Your task to perform on an android device: change the clock display to show seconds Image 0: 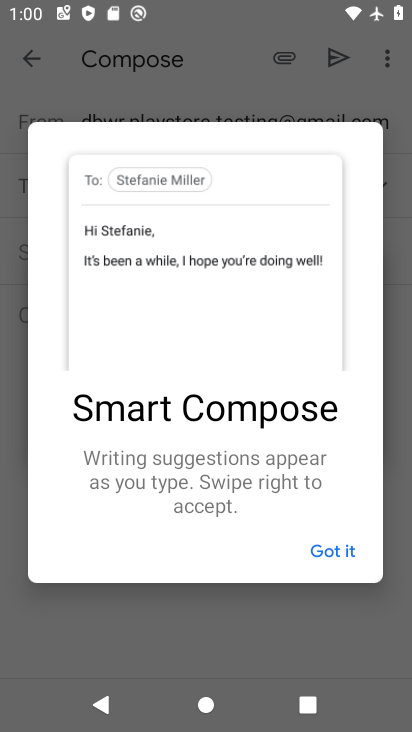
Step 0: press home button
Your task to perform on an android device: change the clock display to show seconds Image 1: 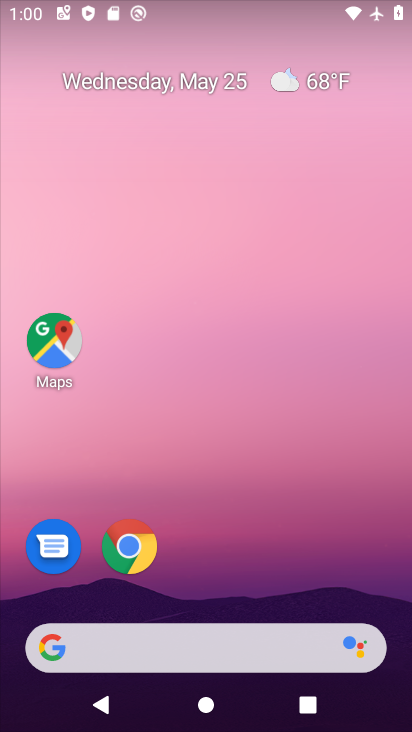
Step 1: drag from (284, 560) to (246, 119)
Your task to perform on an android device: change the clock display to show seconds Image 2: 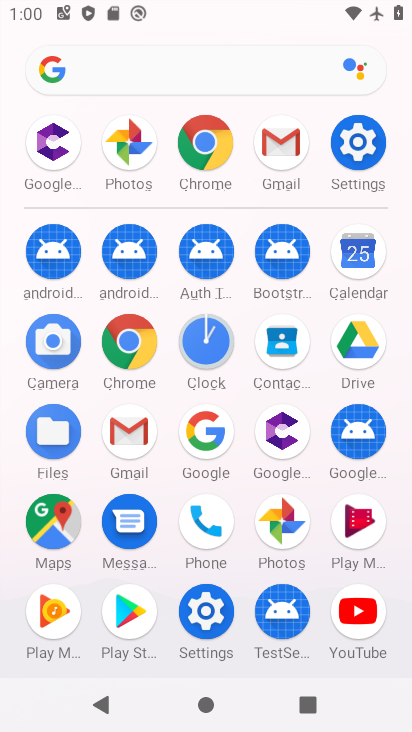
Step 2: click (361, 156)
Your task to perform on an android device: change the clock display to show seconds Image 3: 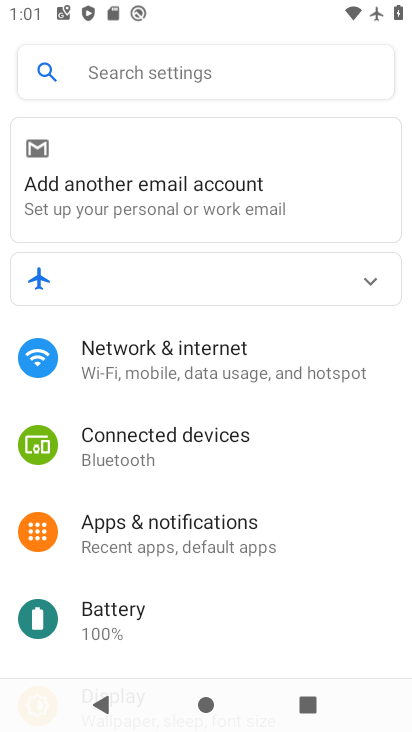
Step 3: press home button
Your task to perform on an android device: change the clock display to show seconds Image 4: 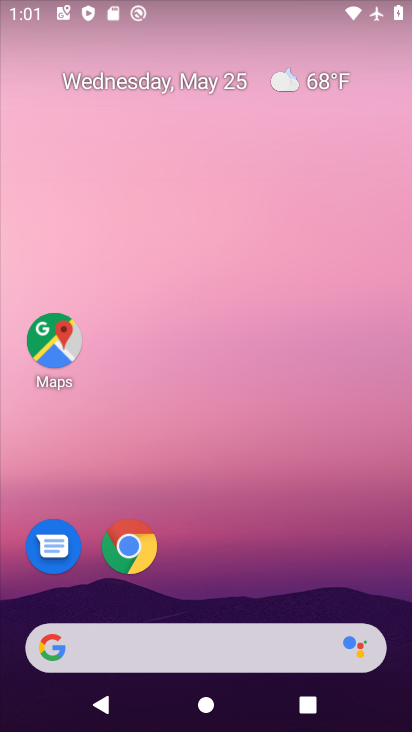
Step 4: click (236, 403)
Your task to perform on an android device: change the clock display to show seconds Image 5: 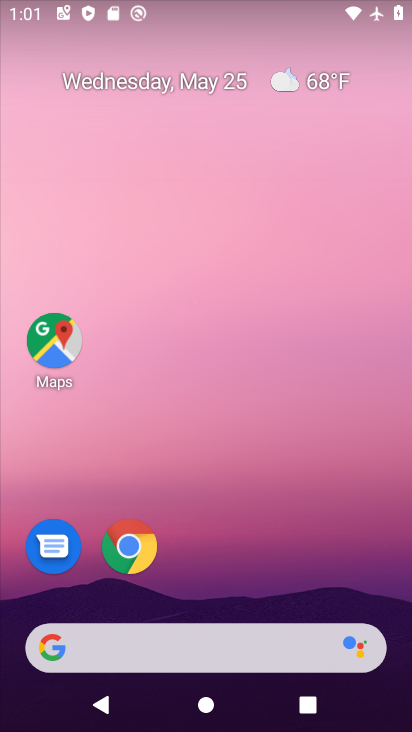
Step 5: drag from (227, 577) to (269, 170)
Your task to perform on an android device: change the clock display to show seconds Image 6: 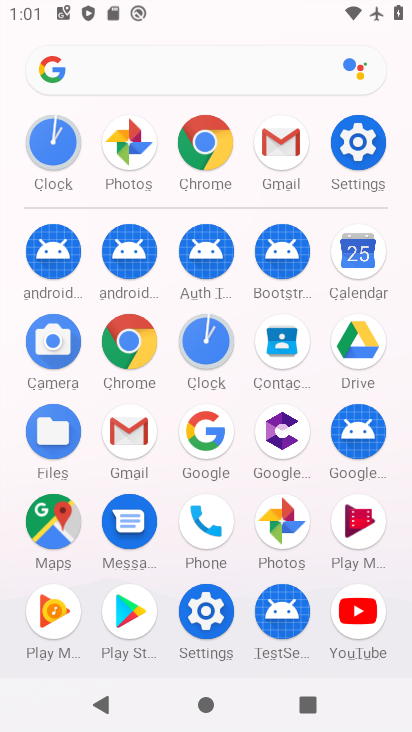
Step 6: click (372, 158)
Your task to perform on an android device: change the clock display to show seconds Image 7: 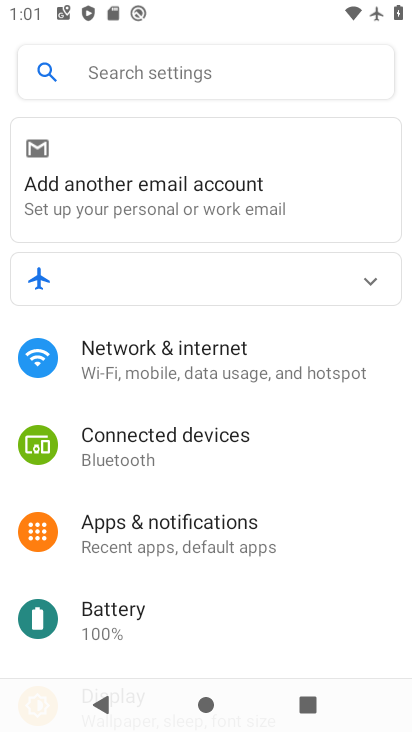
Step 7: drag from (264, 588) to (213, 275)
Your task to perform on an android device: change the clock display to show seconds Image 8: 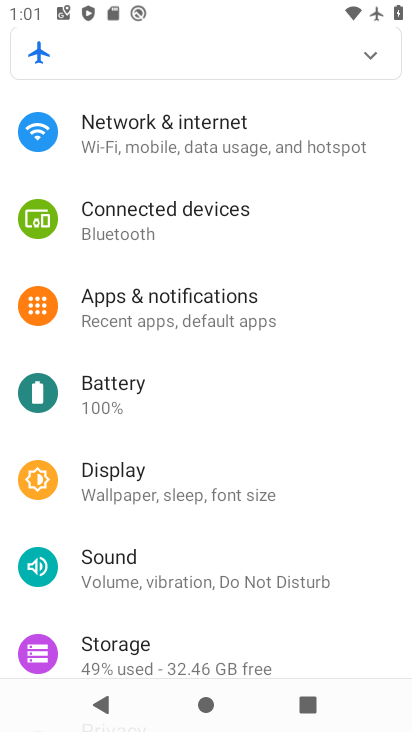
Step 8: drag from (265, 514) to (262, 446)
Your task to perform on an android device: change the clock display to show seconds Image 9: 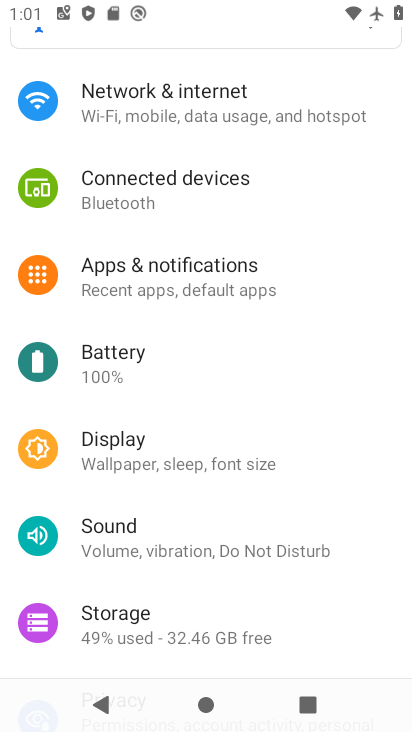
Step 9: press home button
Your task to perform on an android device: change the clock display to show seconds Image 10: 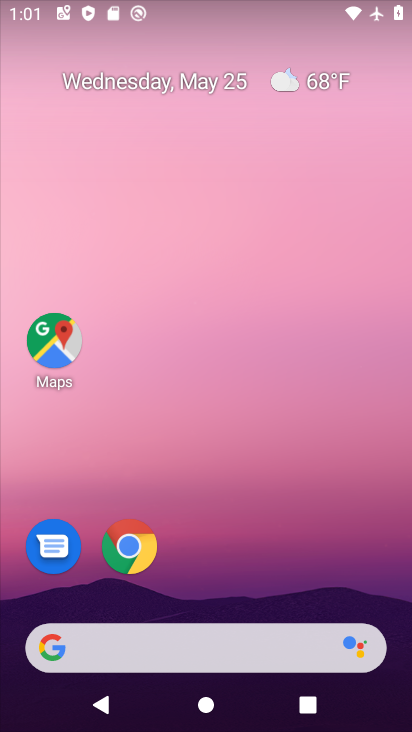
Step 10: drag from (280, 578) to (192, 107)
Your task to perform on an android device: change the clock display to show seconds Image 11: 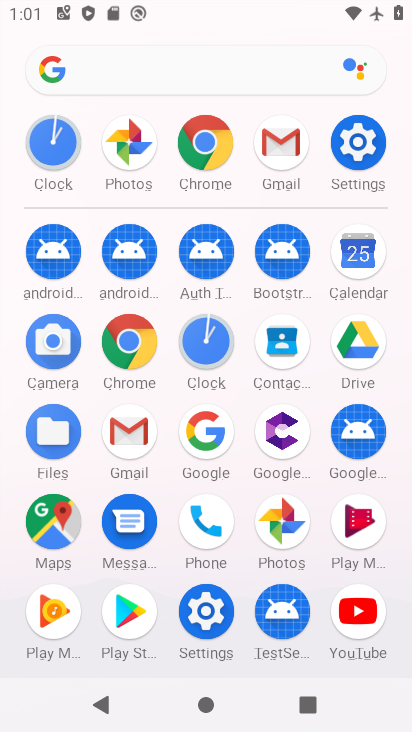
Step 11: click (201, 361)
Your task to perform on an android device: change the clock display to show seconds Image 12: 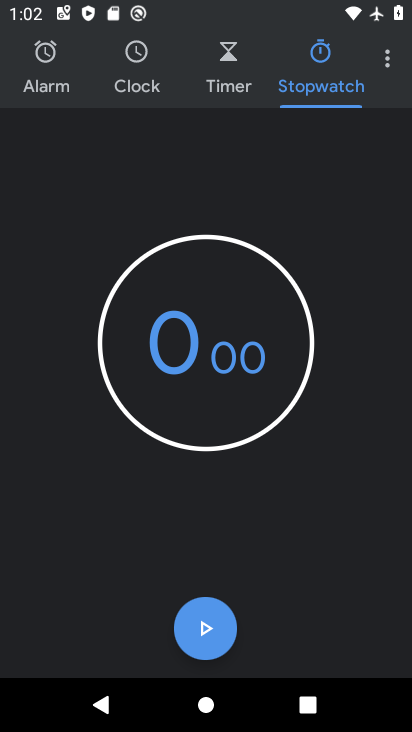
Step 12: click (390, 67)
Your task to perform on an android device: change the clock display to show seconds Image 13: 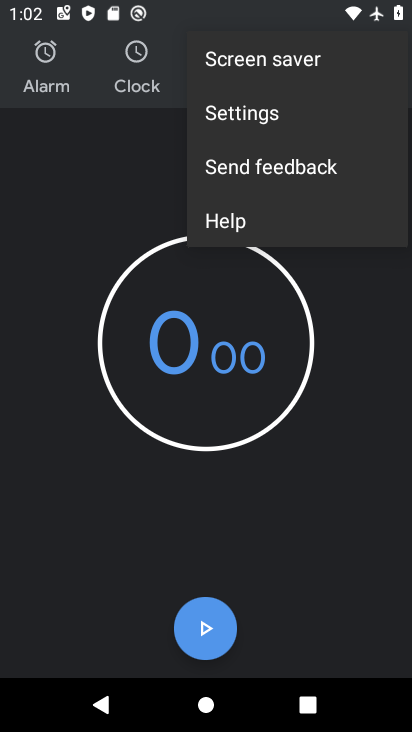
Step 13: click (322, 125)
Your task to perform on an android device: change the clock display to show seconds Image 14: 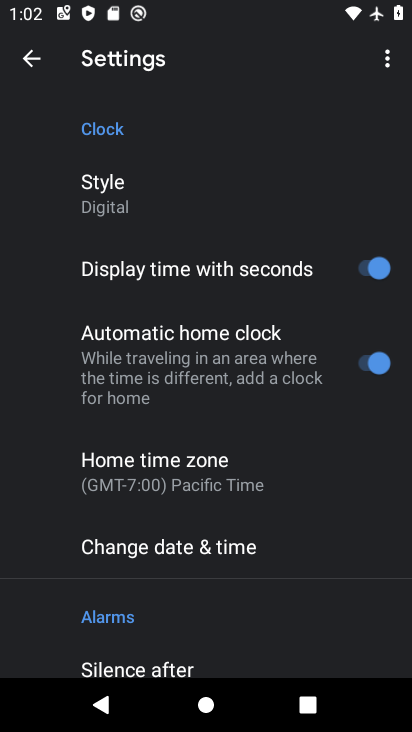
Step 14: click (234, 303)
Your task to perform on an android device: change the clock display to show seconds Image 15: 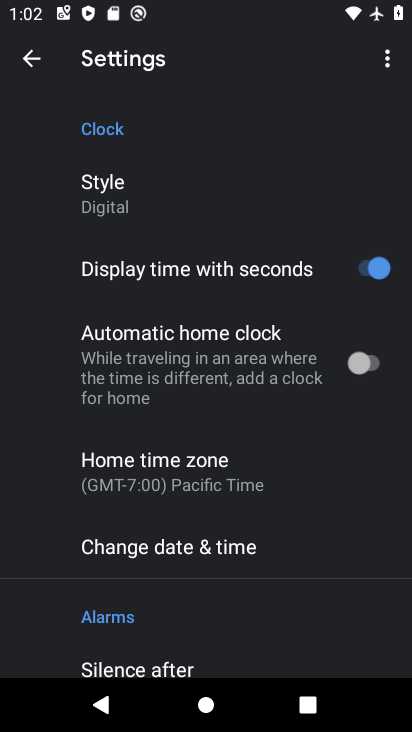
Step 15: task complete